Your task to perform on an android device: Open settings Image 0: 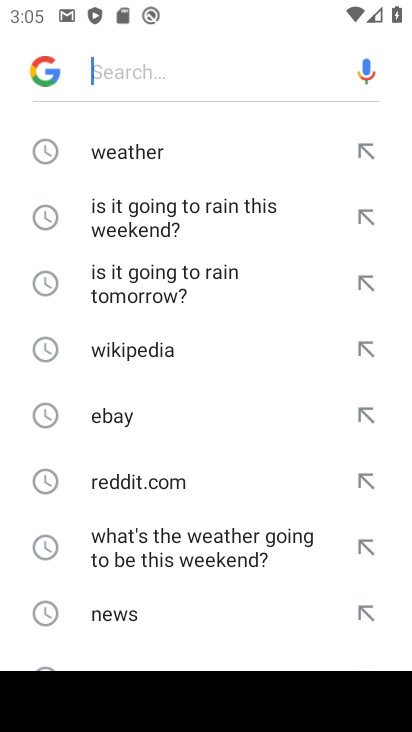
Step 0: press home button
Your task to perform on an android device: Open settings Image 1: 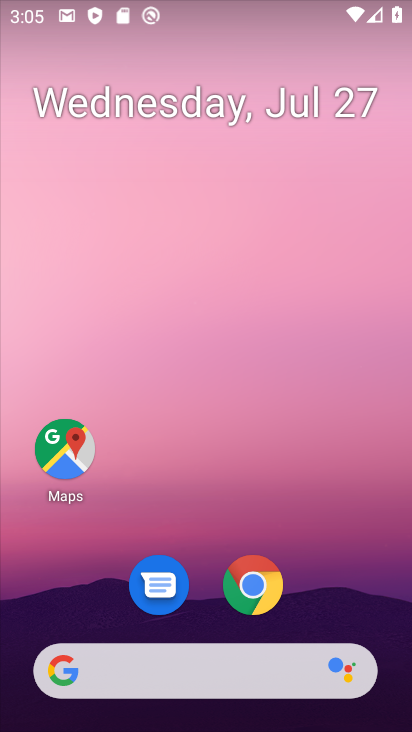
Step 1: drag from (246, 517) to (245, 29)
Your task to perform on an android device: Open settings Image 2: 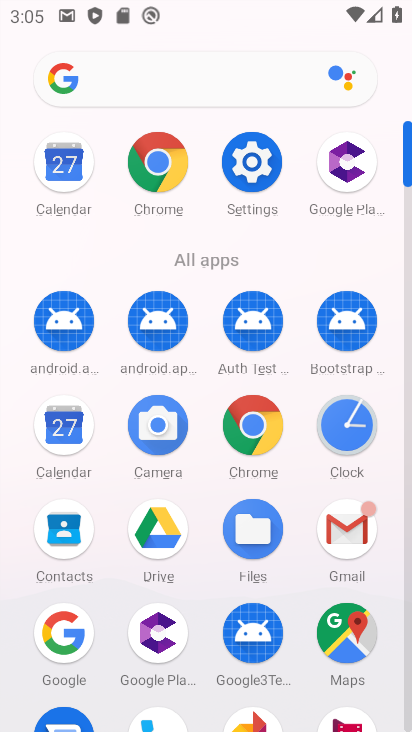
Step 2: click (251, 165)
Your task to perform on an android device: Open settings Image 3: 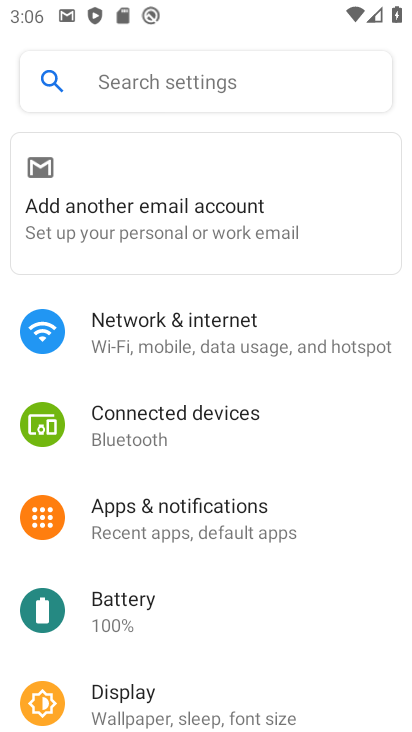
Step 3: task complete